Your task to perform on an android device: check battery use Image 0: 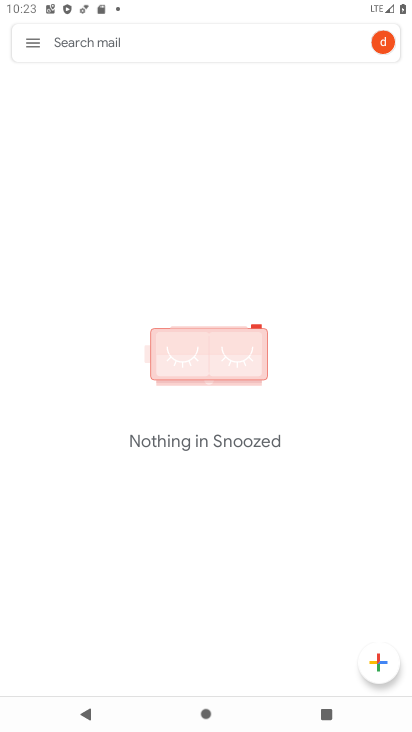
Step 0: press home button
Your task to perform on an android device: check battery use Image 1: 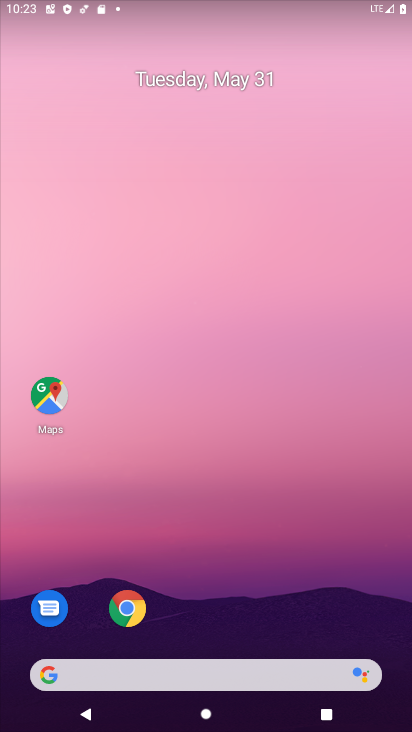
Step 1: drag from (222, 654) to (317, 30)
Your task to perform on an android device: check battery use Image 2: 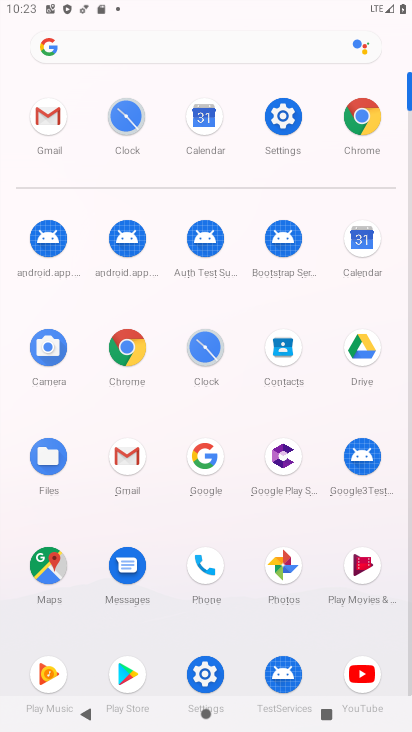
Step 2: click (282, 126)
Your task to perform on an android device: check battery use Image 3: 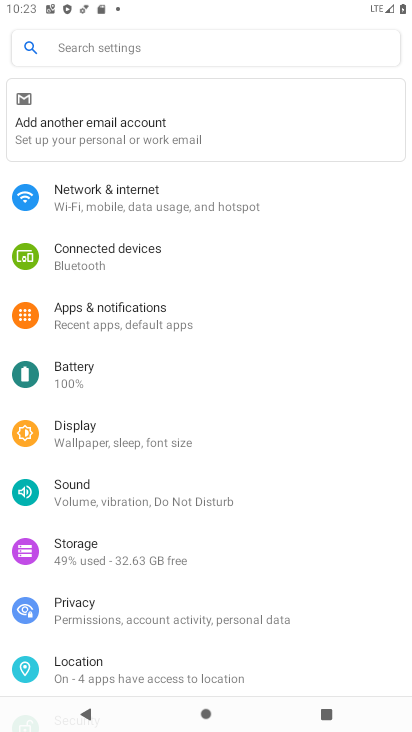
Step 3: click (98, 355)
Your task to perform on an android device: check battery use Image 4: 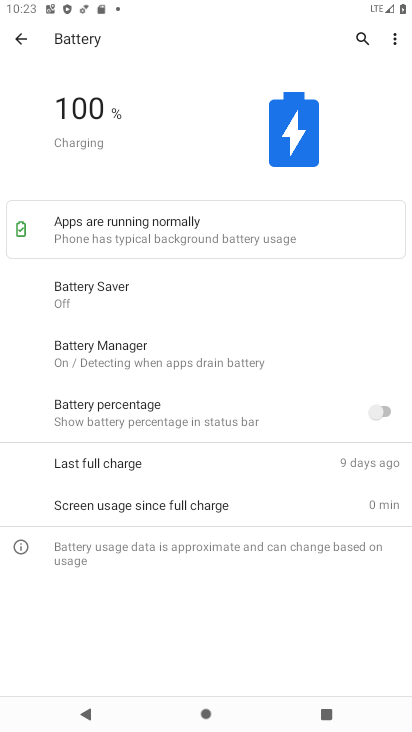
Step 4: click (390, 29)
Your task to perform on an android device: check battery use Image 5: 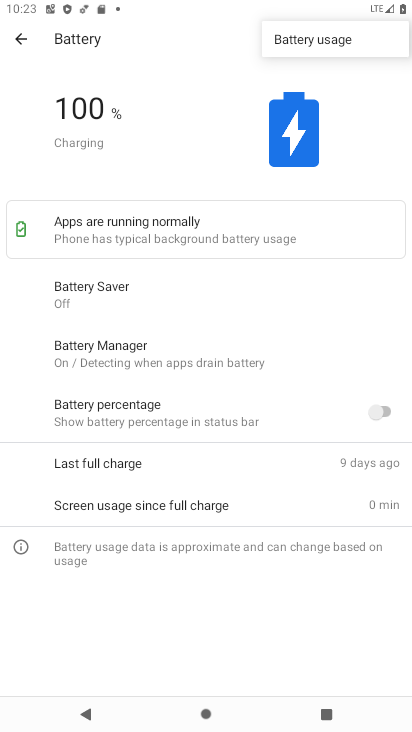
Step 5: click (338, 45)
Your task to perform on an android device: check battery use Image 6: 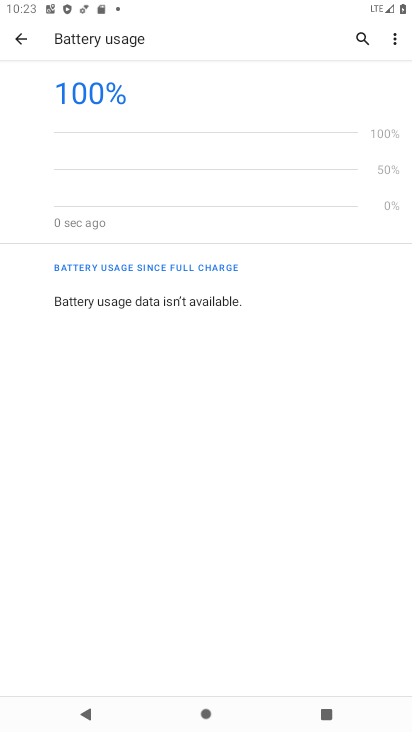
Step 6: task complete